Your task to perform on an android device: check google app version Image 0: 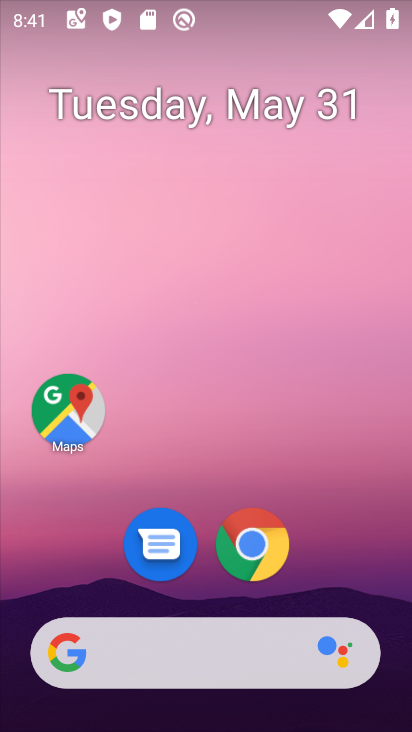
Step 0: drag from (200, 584) to (183, 73)
Your task to perform on an android device: check google app version Image 1: 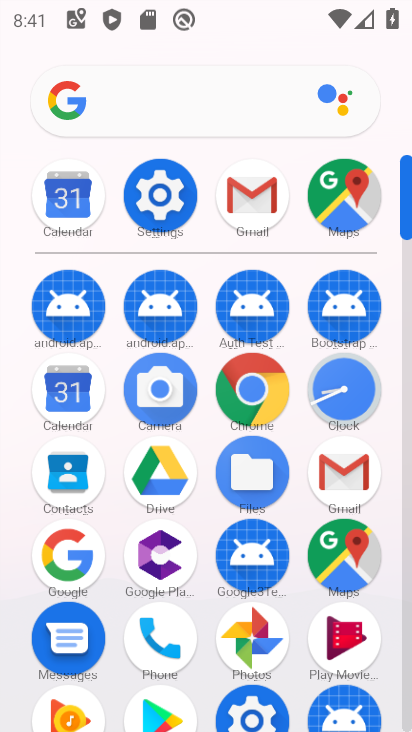
Step 1: click (67, 551)
Your task to perform on an android device: check google app version Image 2: 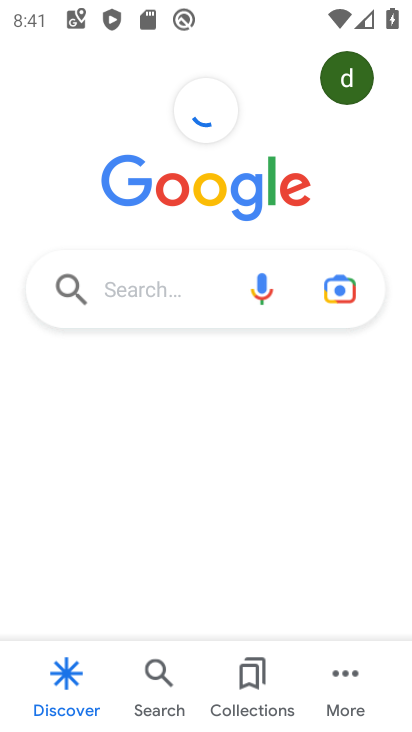
Step 2: click (348, 691)
Your task to perform on an android device: check google app version Image 3: 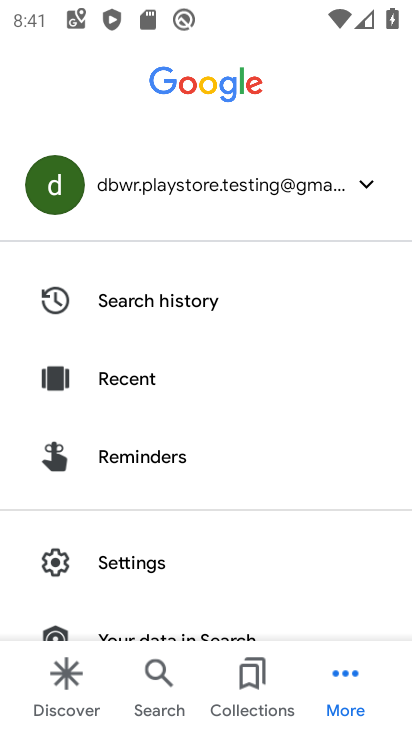
Step 3: click (138, 574)
Your task to perform on an android device: check google app version Image 4: 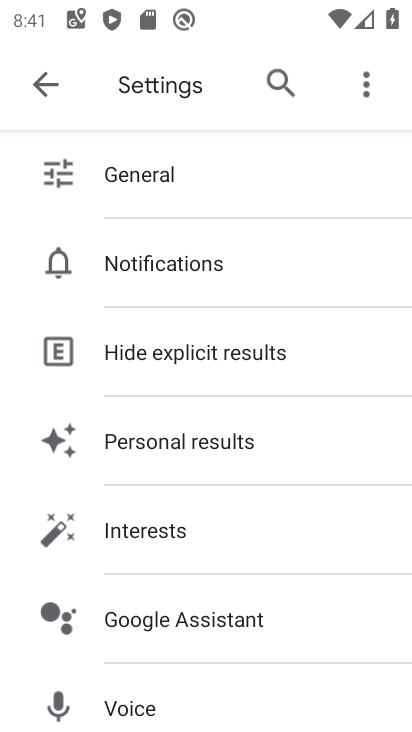
Step 4: drag from (142, 658) to (148, 220)
Your task to perform on an android device: check google app version Image 5: 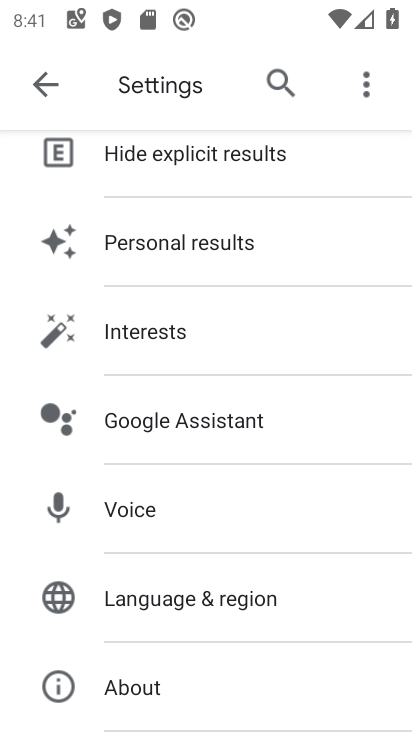
Step 5: click (145, 684)
Your task to perform on an android device: check google app version Image 6: 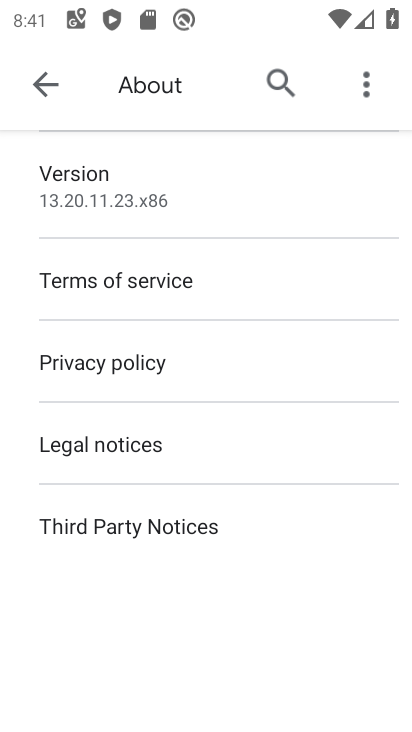
Step 6: click (102, 207)
Your task to perform on an android device: check google app version Image 7: 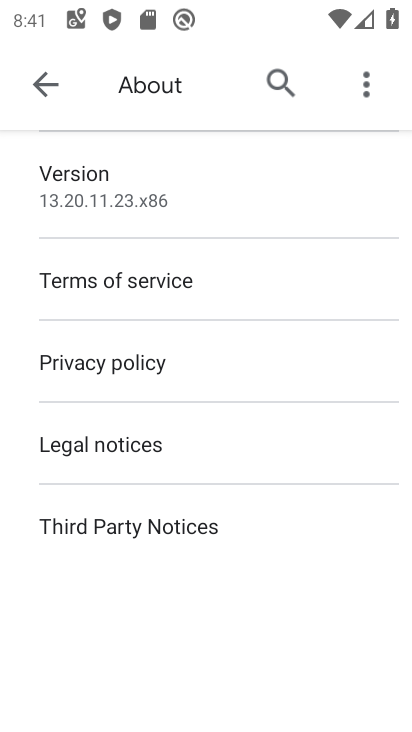
Step 7: task complete